Your task to perform on an android device: See recent photos Image 0: 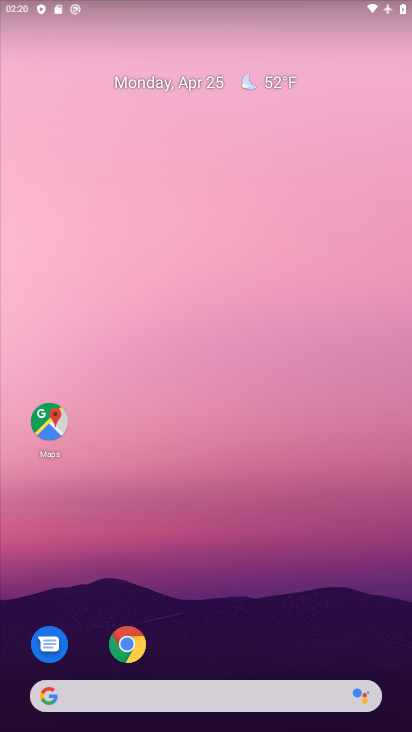
Step 0: drag from (274, 633) to (152, 6)
Your task to perform on an android device: See recent photos Image 1: 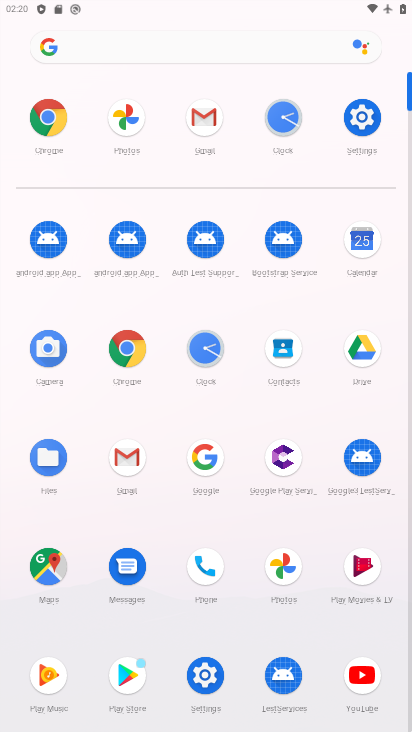
Step 1: click (139, 145)
Your task to perform on an android device: See recent photos Image 2: 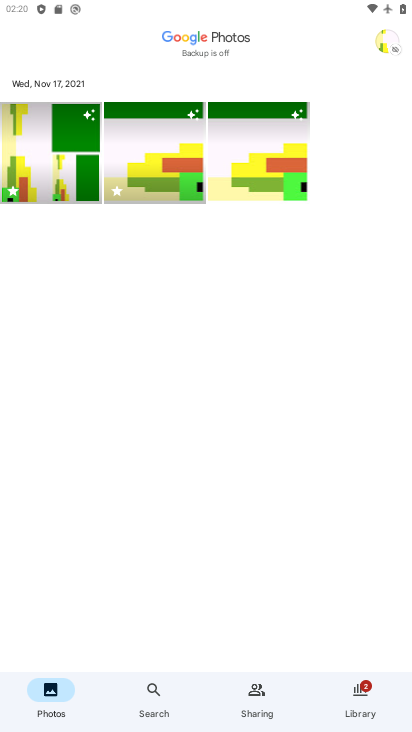
Step 2: task complete